Your task to perform on an android device: check storage Image 0: 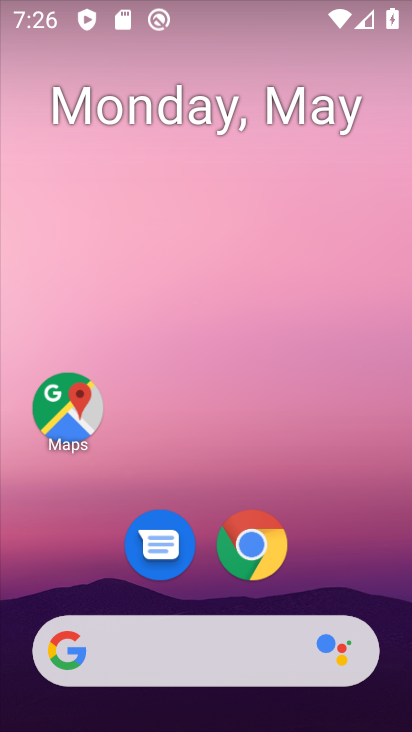
Step 0: drag from (383, 508) to (184, 5)
Your task to perform on an android device: check storage Image 1: 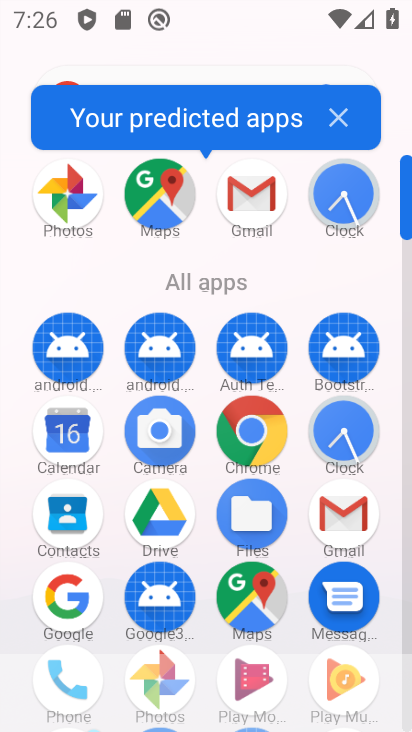
Step 1: drag from (176, 273) to (144, 0)
Your task to perform on an android device: check storage Image 2: 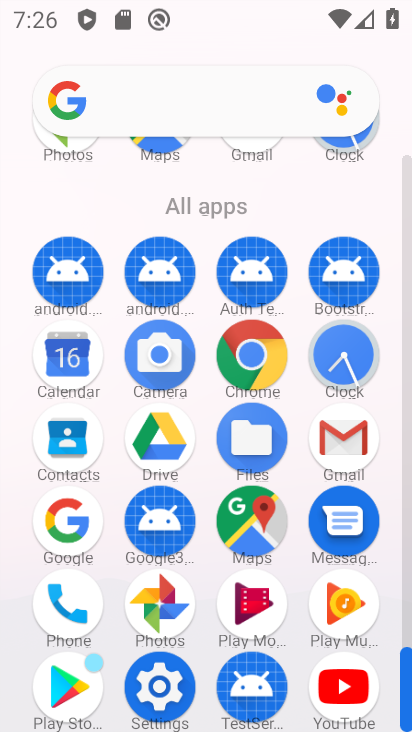
Step 2: drag from (198, 207) to (173, 6)
Your task to perform on an android device: check storage Image 3: 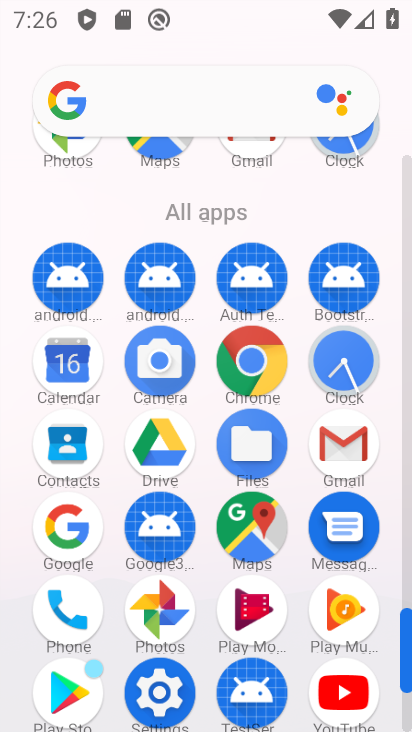
Step 3: click (164, 688)
Your task to perform on an android device: check storage Image 4: 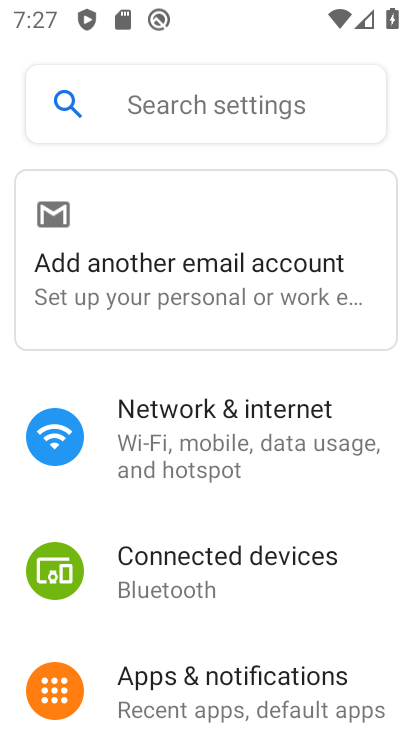
Step 4: drag from (267, 691) to (210, 447)
Your task to perform on an android device: check storage Image 5: 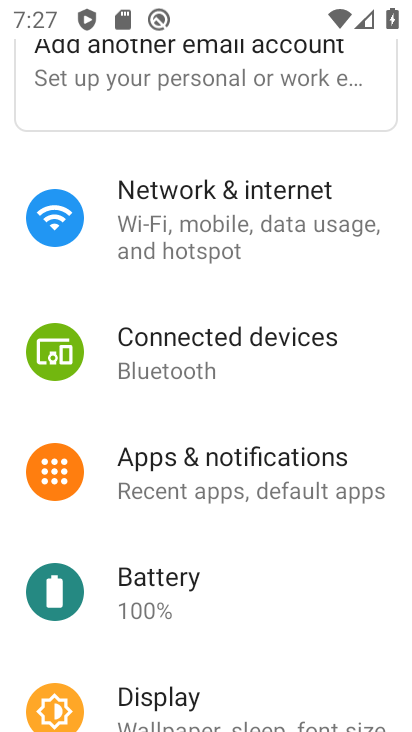
Step 5: drag from (241, 648) to (162, 294)
Your task to perform on an android device: check storage Image 6: 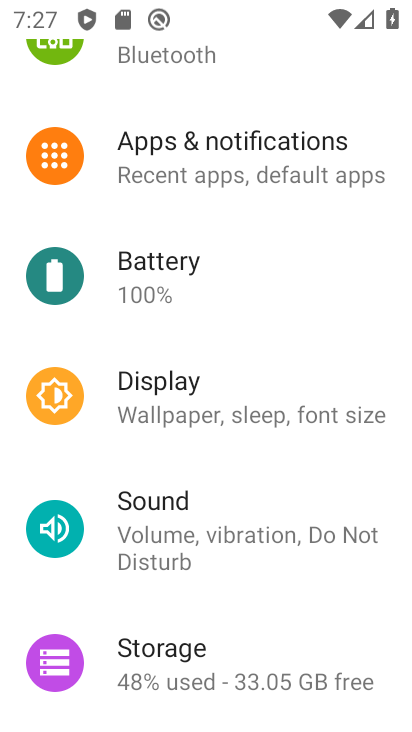
Step 6: click (202, 676)
Your task to perform on an android device: check storage Image 7: 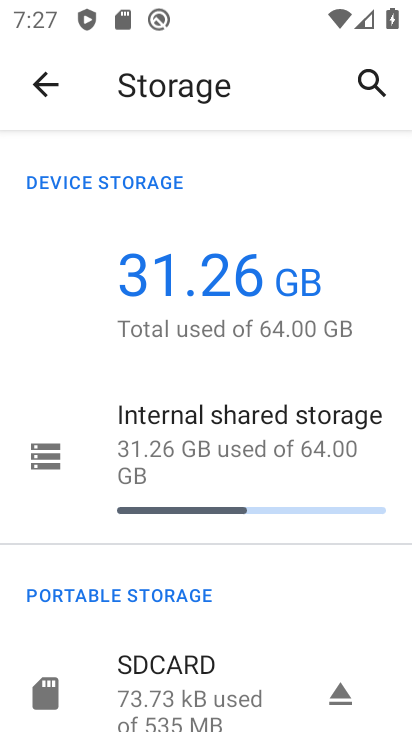
Step 7: task complete